Your task to perform on an android device: Do I have any events tomorrow? Image 0: 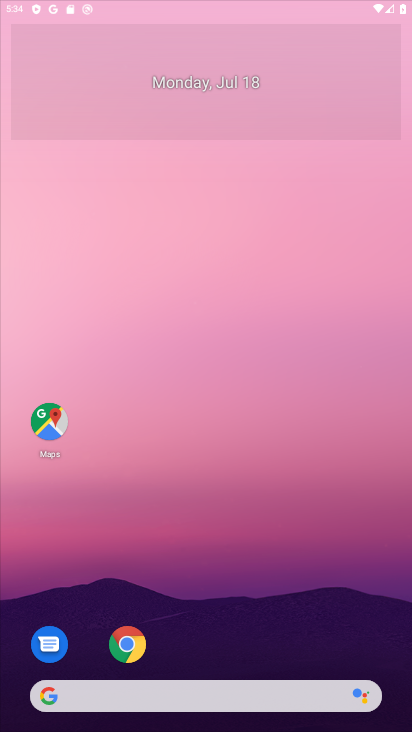
Step 0: press home button
Your task to perform on an android device: Do I have any events tomorrow? Image 1: 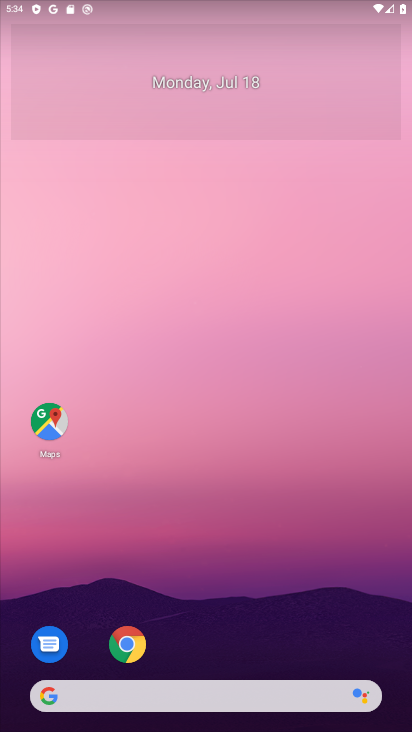
Step 1: press home button
Your task to perform on an android device: Do I have any events tomorrow? Image 2: 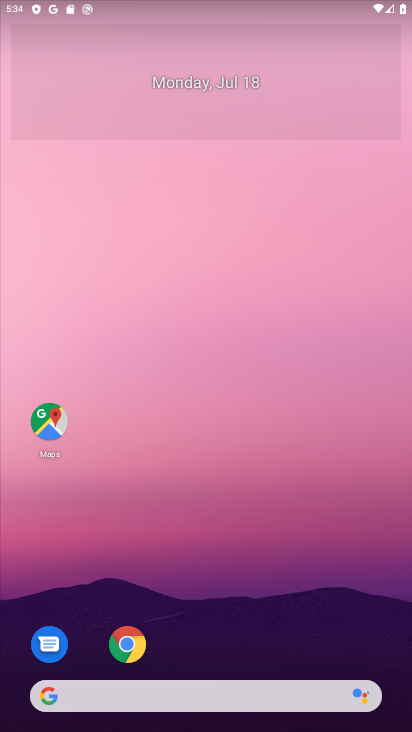
Step 2: drag from (277, 611) to (301, 226)
Your task to perform on an android device: Do I have any events tomorrow? Image 3: 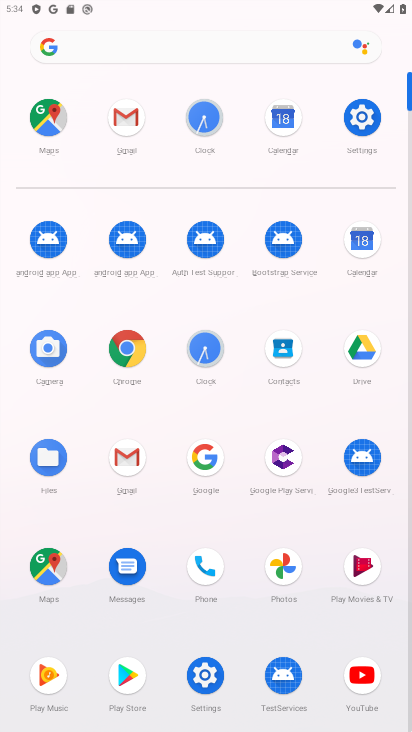
Step 3: click (370, 236)
Your task to perform on an android device: Do I have any events tomorrow? Image 4: 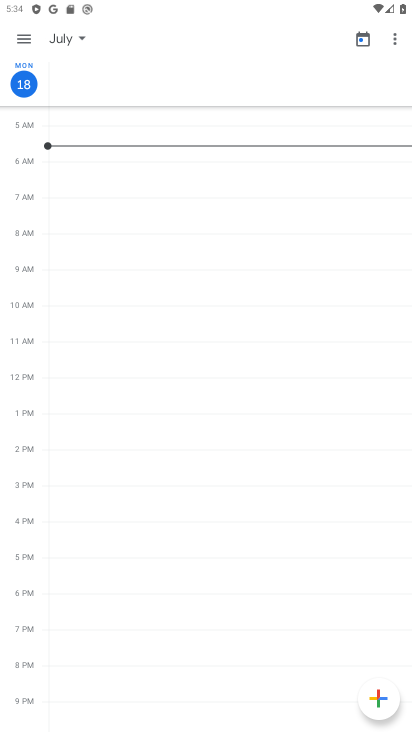
Step 4: task complete